Your task to perform on an android device: Open Maps and search for coffee Image 0: 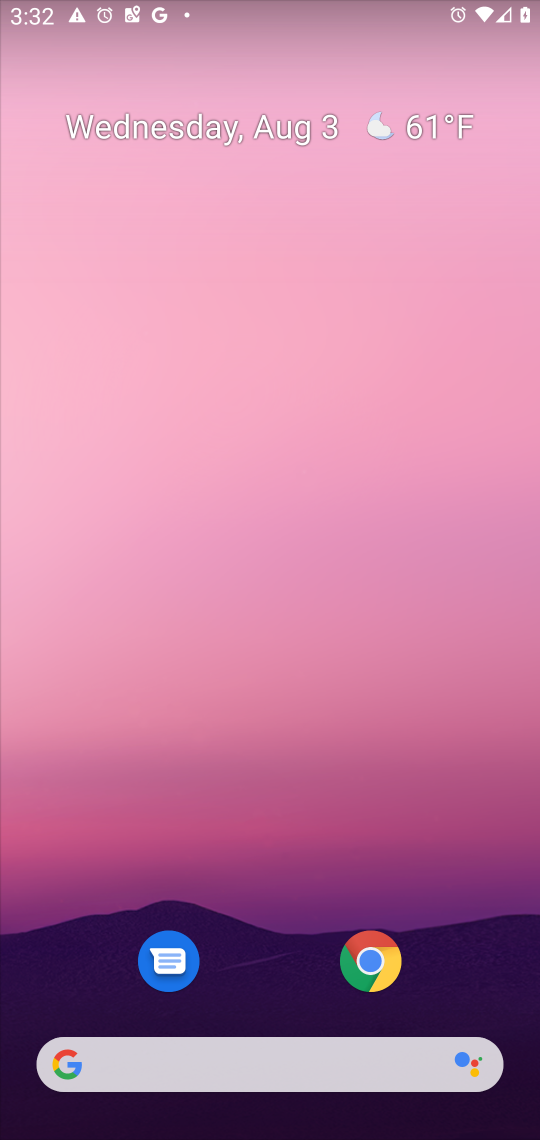
Step 0: drag from (286, 764) to (316, 0)
Your task to perform on an android device: Open Maps and search for coffee Image 1: 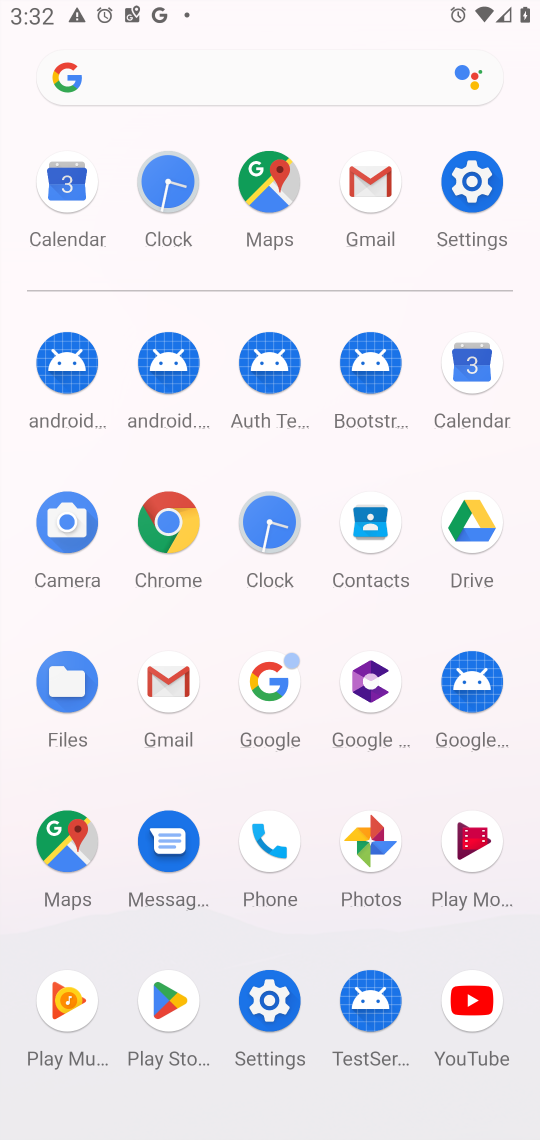
Step 1: click (262, 181)
Your task to perform on an android device: Open Maps and search for coffee Image 2: 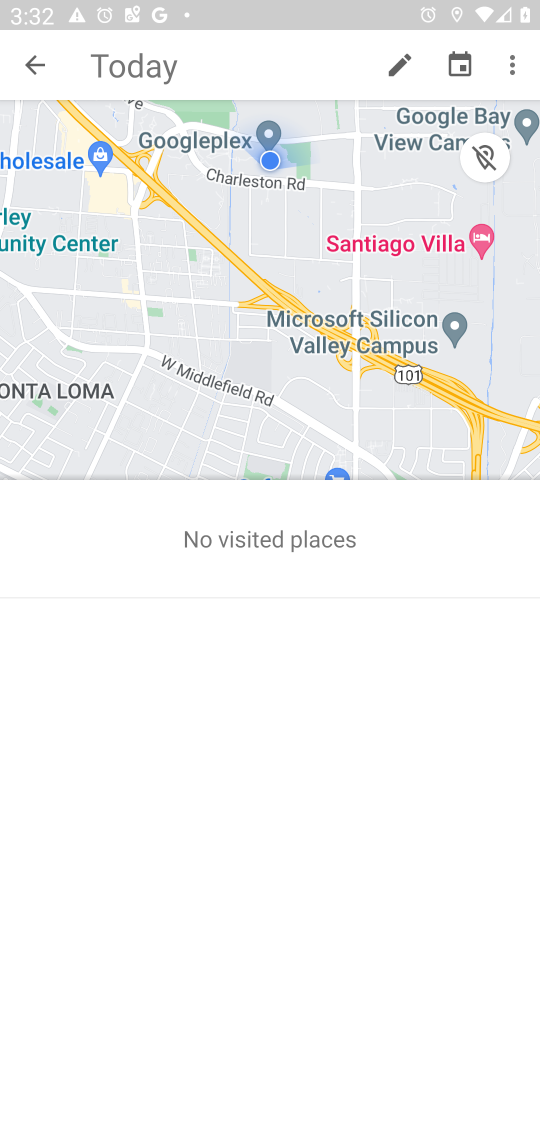
Step 2: click (35, 68)
Your task to perform on an android device: Open Maps and search for coffee Image 3: 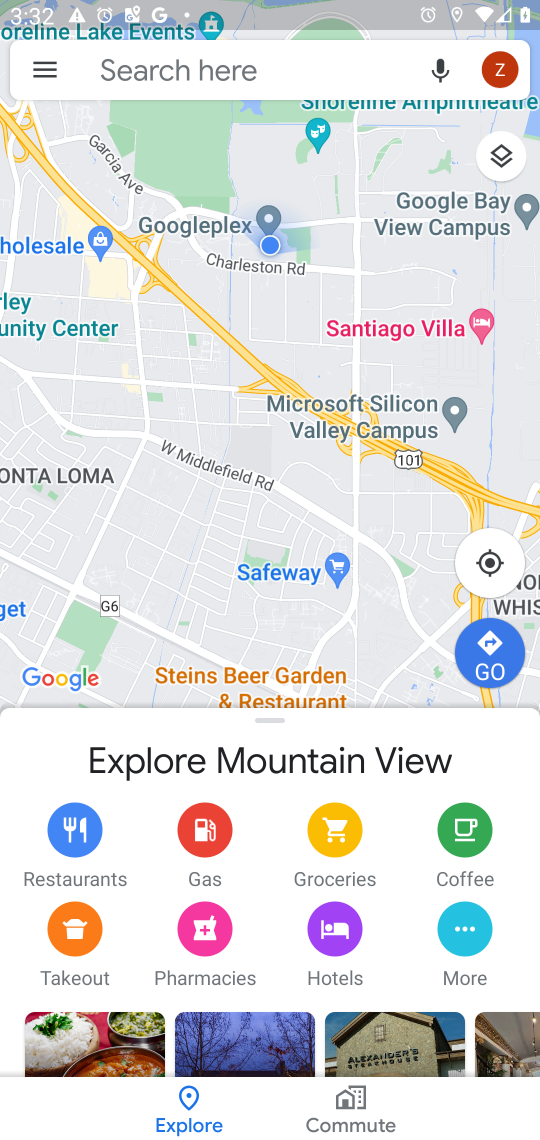
Step 3: click (140, 71)
Your task to perform on an android device: Open Maps and search for coffee Image 4: 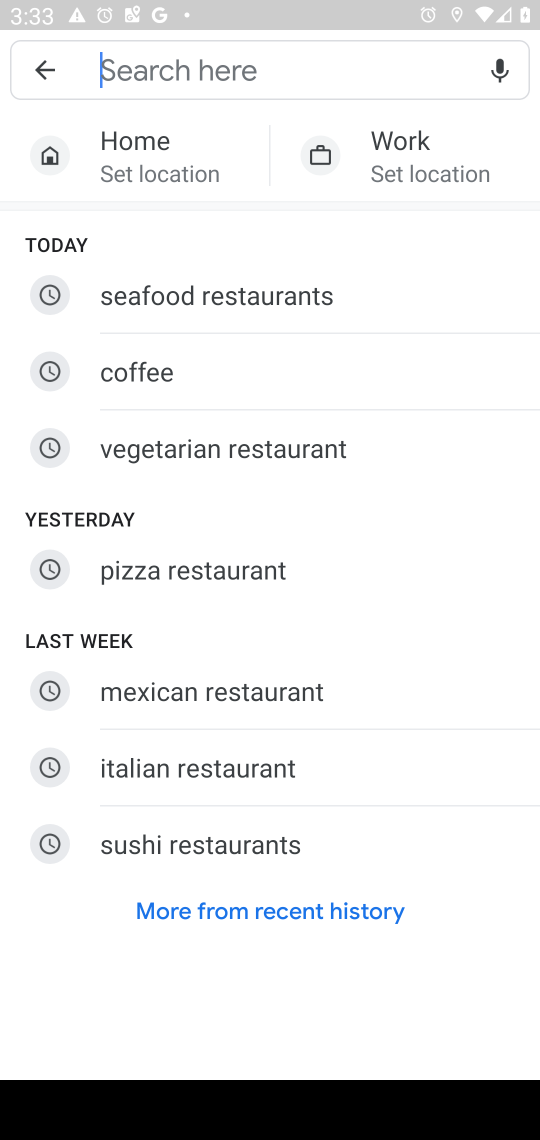
Step 4: type "coffee"
Your task to perform on an android device: Open Maps and search for coffee Image 5: 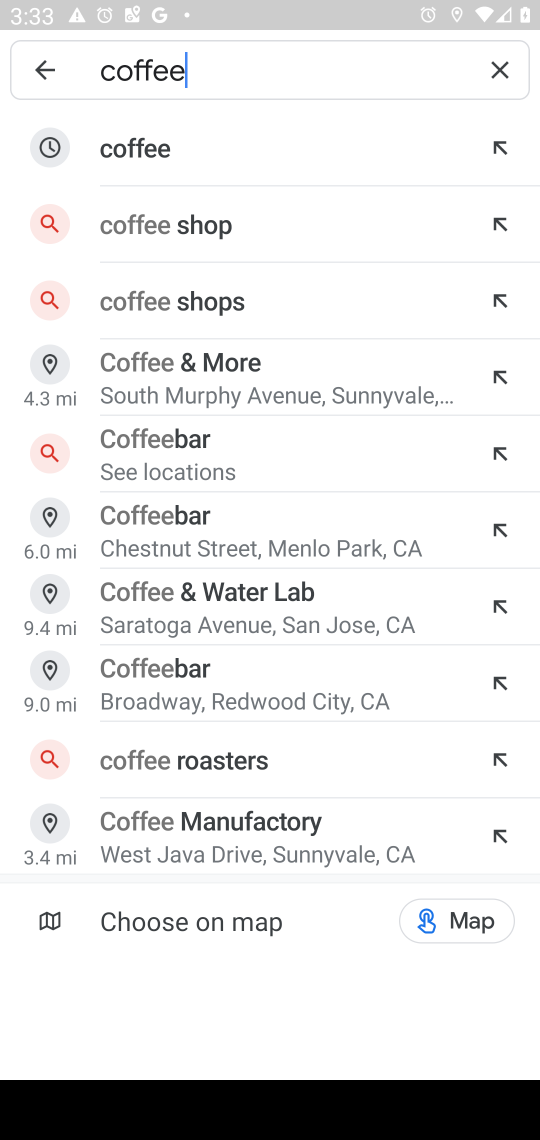
Step 5: click (146, 160)
Your task to perform on an android device: Open Maps and search for coffee Image 6: 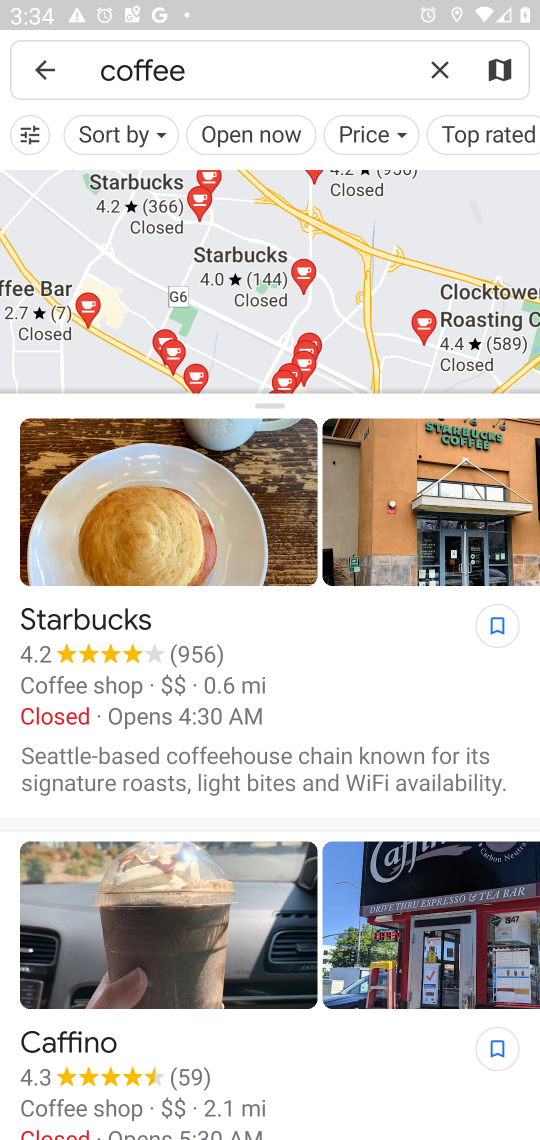
Step 6: task complete